Your task to perform on an android device: turn on priority inbox in the gmail app Image 0: 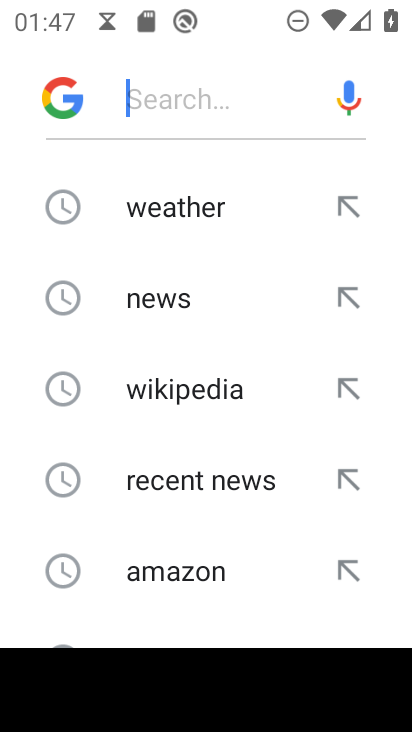
Step 0: press home button
Your task to perform on an android device: turn on priority inbox in the gmail app Image 1: 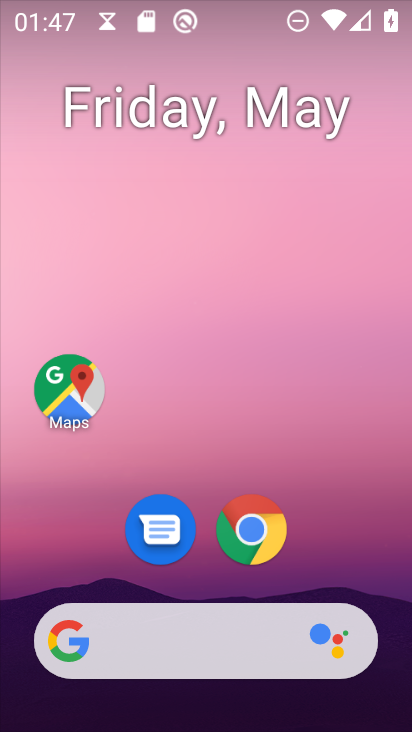
Step 1: drag from (236, 555) to (228, 243)
Your task to perform on an android device: turn on priority inbox in the gmail app Image 2: 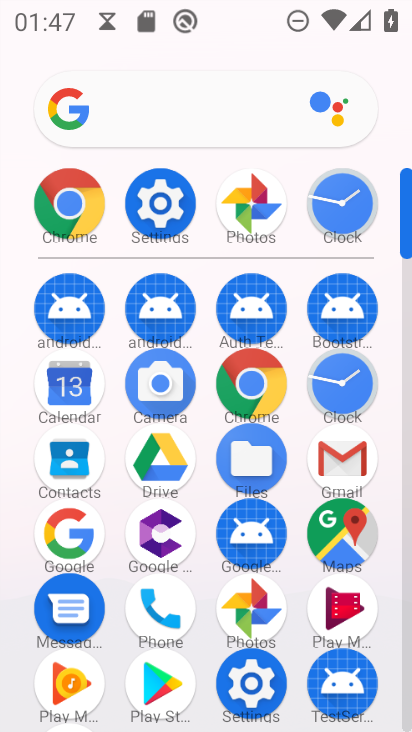
Step 2: drag from (296, 545) to (351, 254)
Your task to perform on an android device: turn on priority inbox in the gmail app Image 3: 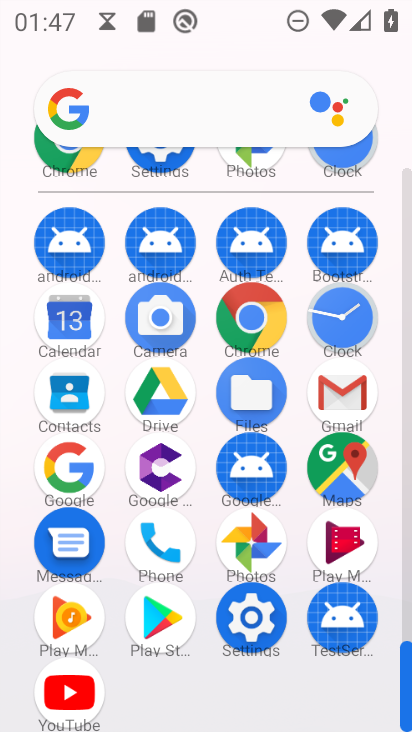
Step 3: click (343, 385)
Your task to perform on an android device: turn on priority inbox in the gmail app Image 4: 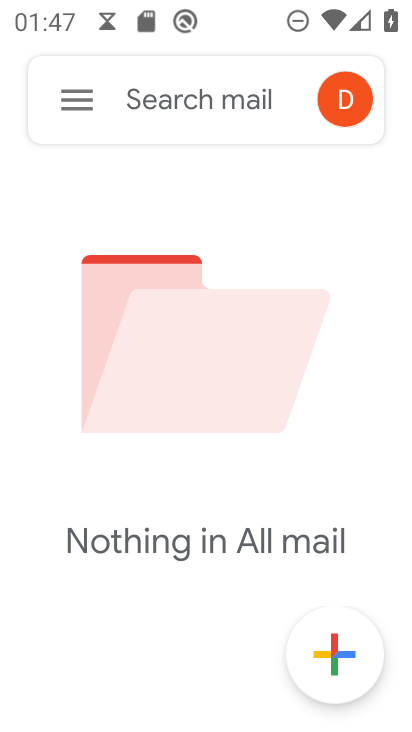
Step 4: click (83, 99)
Your task to perform on an android device: turn on priority inbox in the gmail app Image 5: 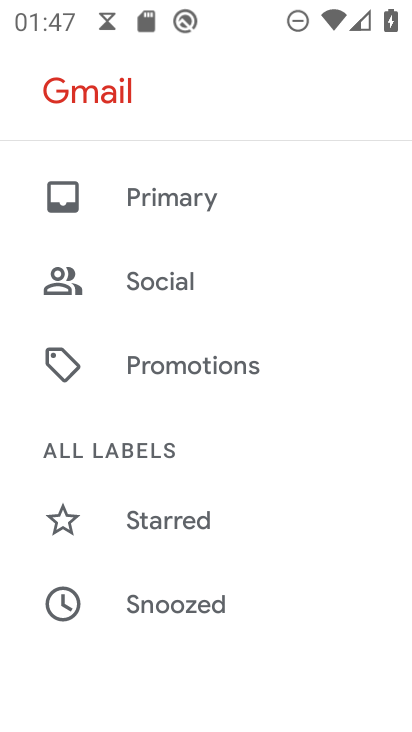
Step 5: drag from (193, 261) to (219, 180)
Your task to perform on an android device: turn on priority inbox in the gmail app Image 6: 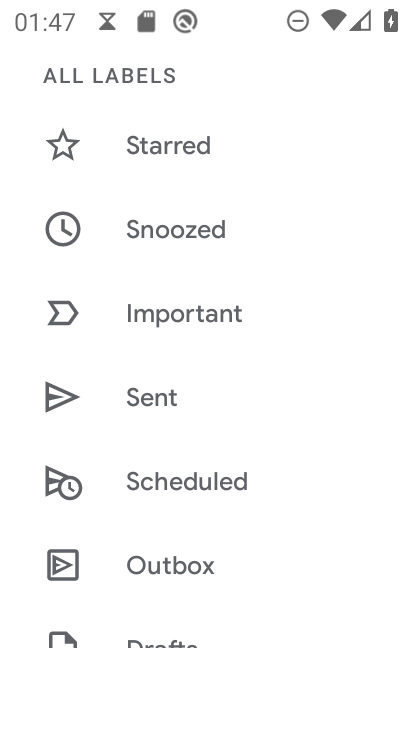
Step 6: drag from (143, 527) to (208, 184)
Your task to perform on an android device: turn on priority inbox in the gmail app Image 7: 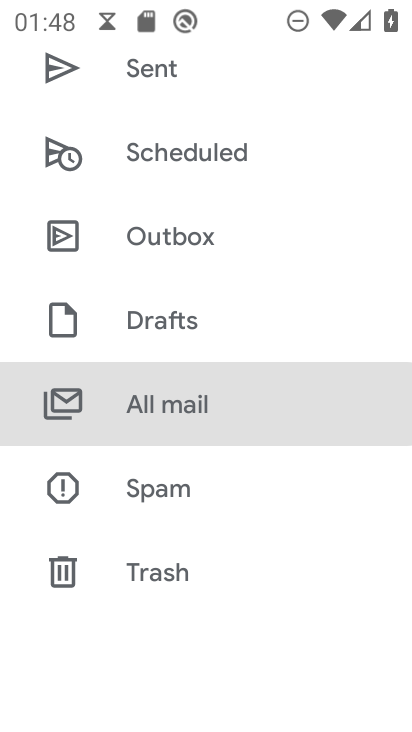
Step 7: drag from (211, 620) to (238, 190)
Your task to perform on an android device: turn on priority inbox in the gmail app Image 8: 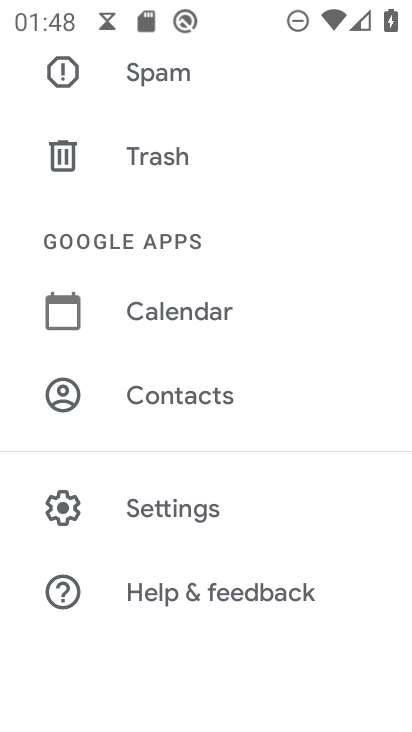
Step 8: click (153, 528)
Your task to perform on an android device: turn on priority inbox in the gmail app Image 9: 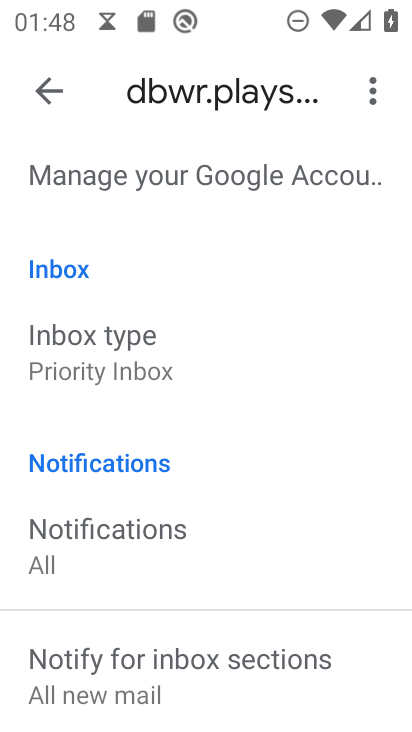
Step 9: click (153, 380)
Your task to perform on an android device: turn on priority inbox in the gmail app Image 10: 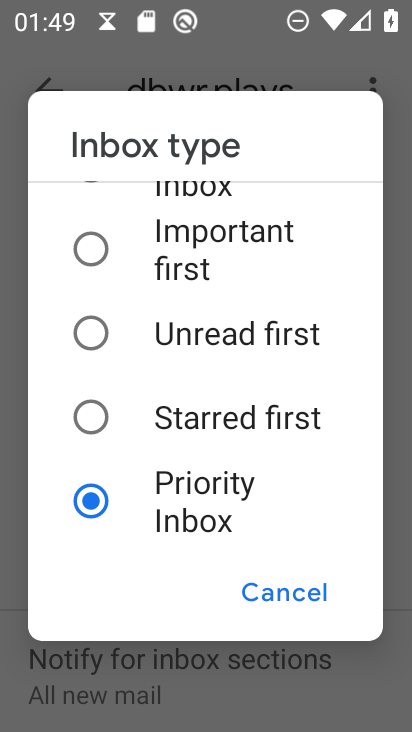
Step 10: task complete